Your task to perform on an android device: open the mobile data screen to see how much data has been used Image 0: 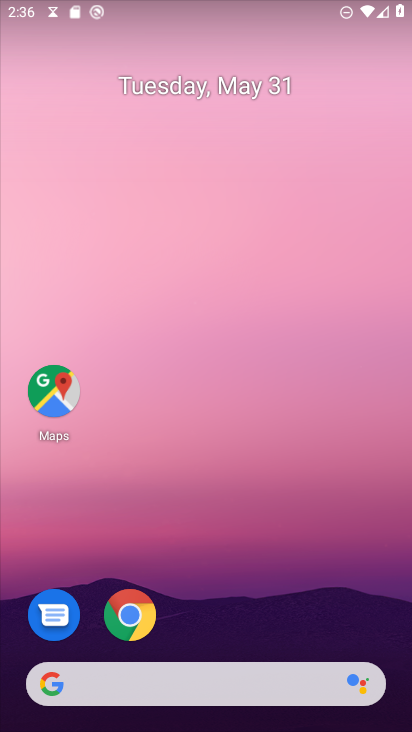
Step 0: drag from (206, 244) to (186, 73)
Your task to perform on an android device: open the mobile data screen to see how much data has been used Image 1: 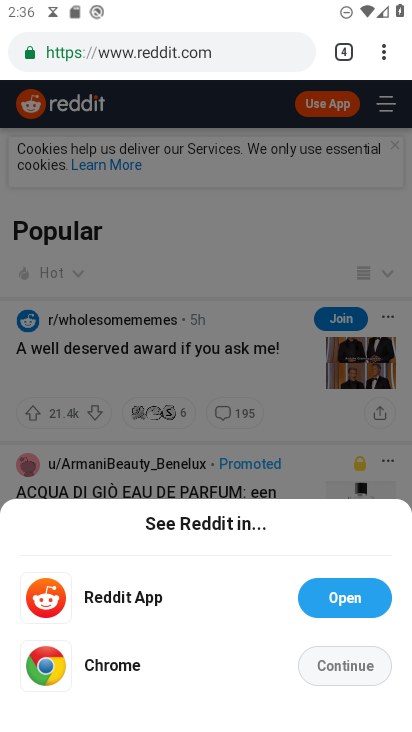
Step 1: press back button
Your task to perform on an android device: open the mobile data screen to see how much data has been used Image 2: 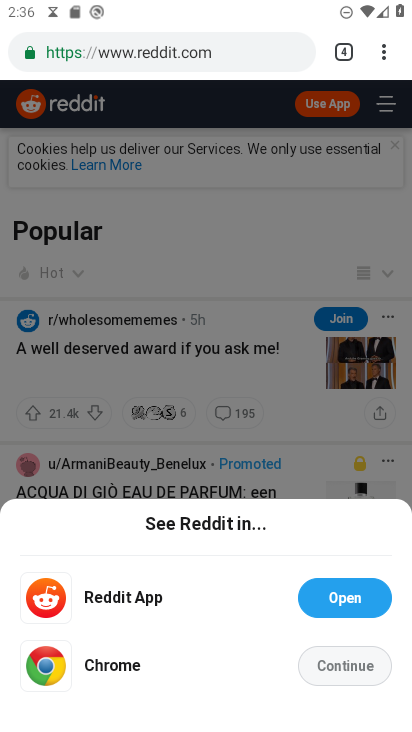
Step 2: press back button
Your task to perform on an android device: open the mobile data screen to see how much data has been used Image 3: 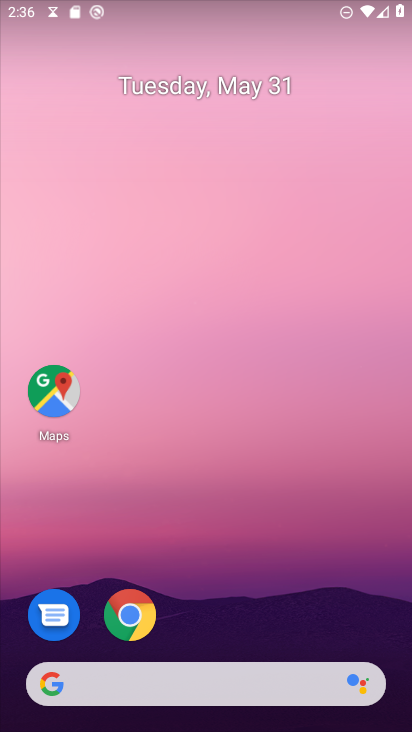
Step 3: drag from (229, 653) to (152, 168)
Your task to perform on an android device: open the mobile data screen to see how much data has been used Image 4: 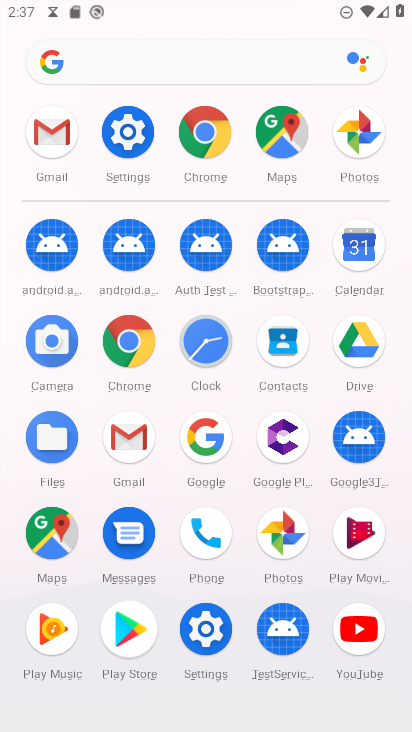
Step 4: click (203, 621)
Your task to perform on an android device: open the mobile data screen to see how much data has been used Image 5: 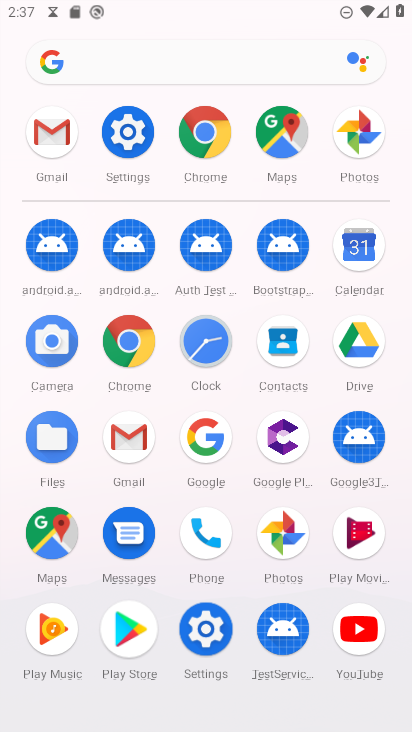
Step 5: click (203, 621)
Your task to perform on an android device: open the mobile data screen to see how much data has been used Image 6: 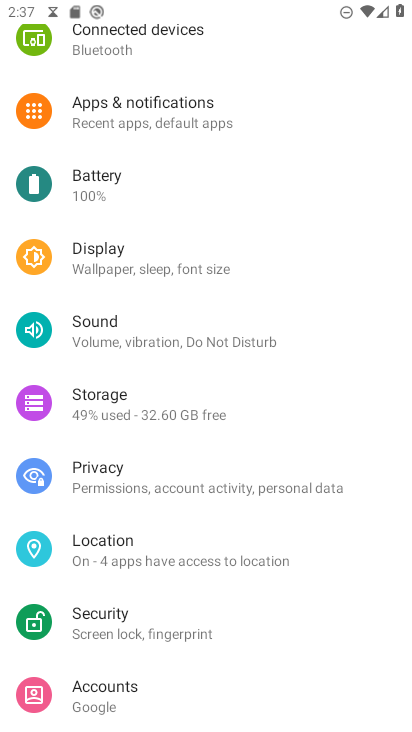
Step 6: drag from (120, 178) to (185, 408)
Your task to perform on an android device: open the mobile data screen to see how much data has been used Image 7: 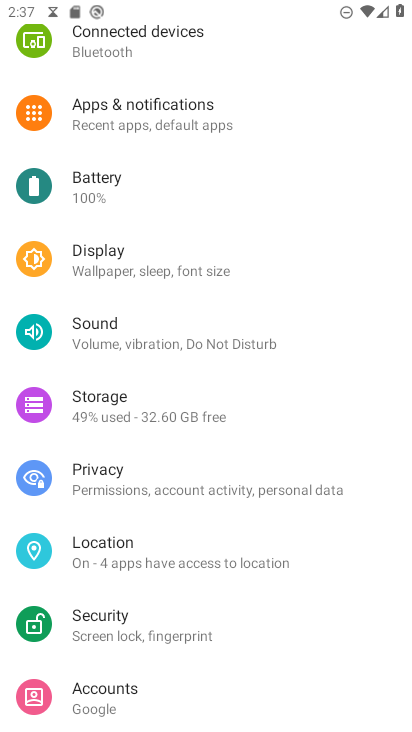
Step 7: drag from (151, 144) to (196, 386)
Your task to perform on an android device: open the mobile data screen to see how much data has been used Image 8: 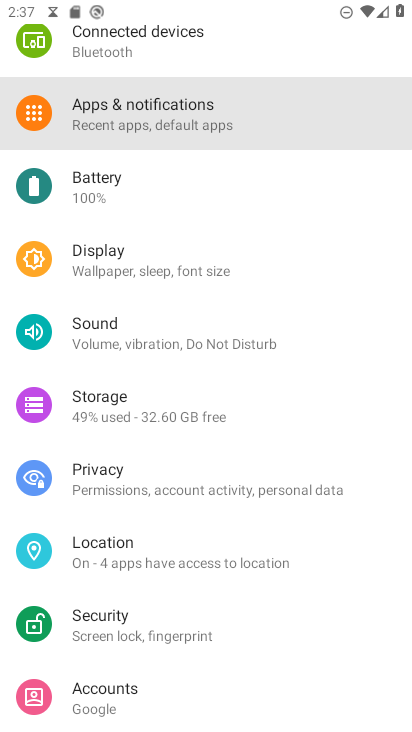
Step 8: drag from (189, 255) to (248, 476)
Your task to perform on an android device: open the mobile data screen to see how much data has been used Image 9: 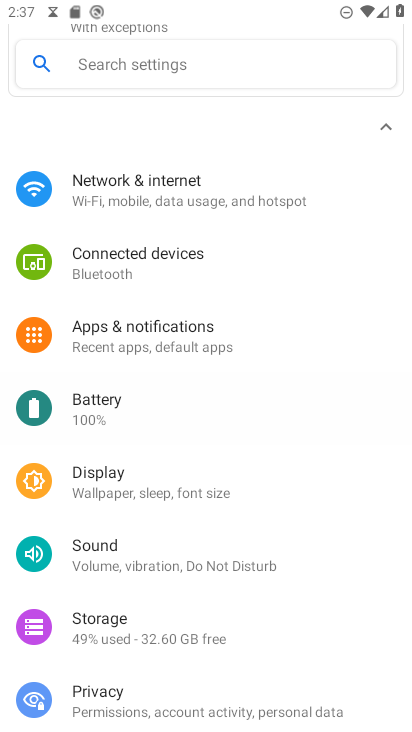
Step 9: drag from (233, 186) to (243, 446)
Your task to perform on an android device: open the mobile data screen to see how much data has been used Image 10: 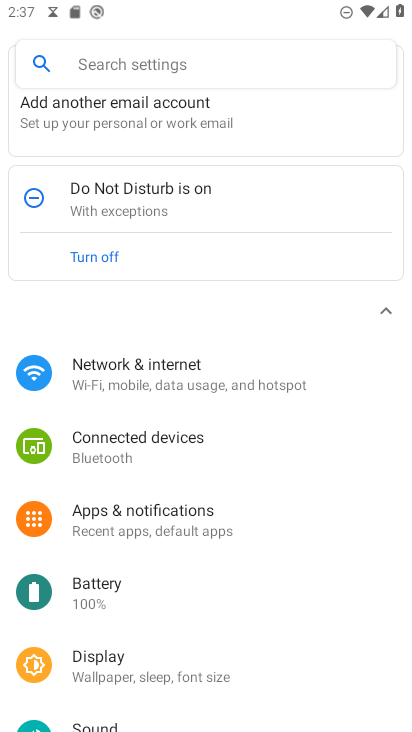
Step 10: click (168, 197)
Your task to perform on an android device: open the mobile data screen to see how much data has been used Image 11: 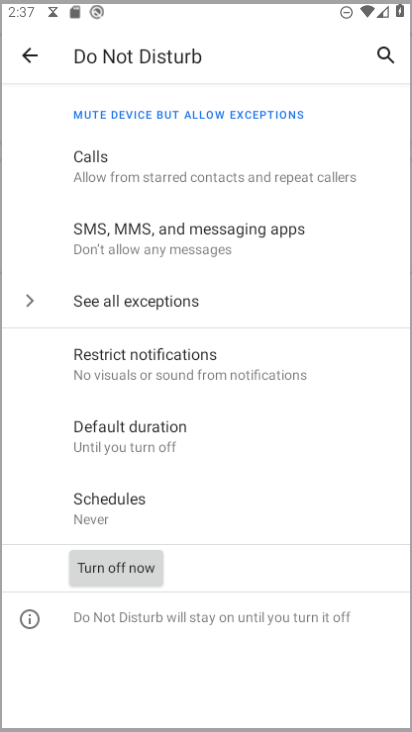
Step 11: click (169, 355)
Your task to perform on an android device: open the mobile data screen to see how much data has been used Image 12: 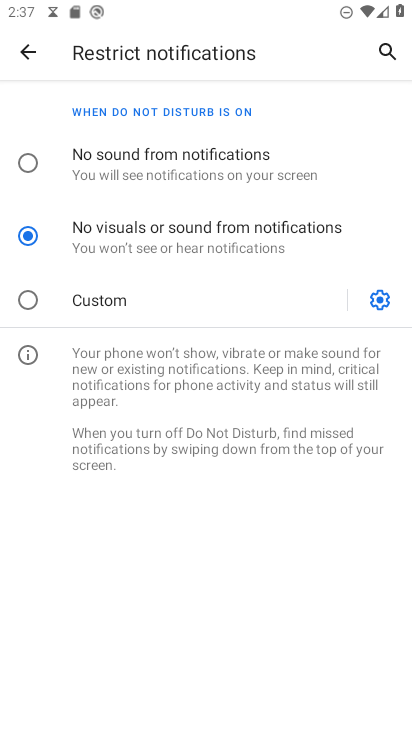
Step 12: click (21, 37)
Your task to perform on an android device: open the mobile data screen to see how much data has been used Image 13: 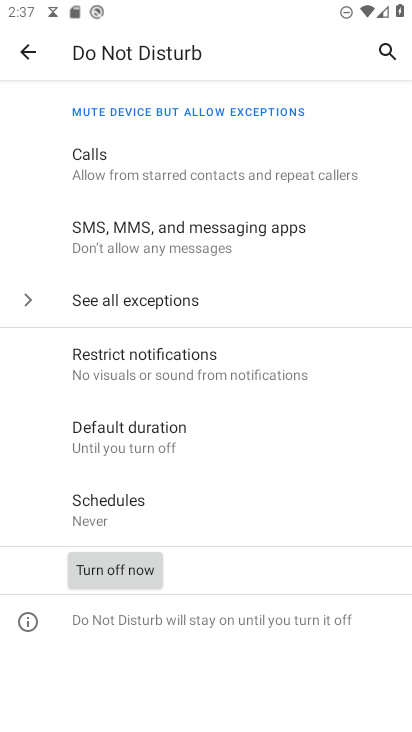
Step 13: click (19, 42)
Your task to perform on an android device: open the mobile data screen to see how much data has been used Image 14: 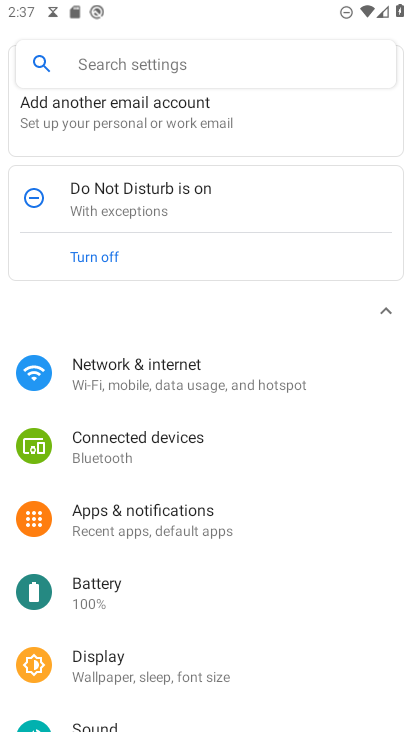
Step 14: click (166, 375)
Your task to perform on an android device: open the mobile data screen to see how much data has been used Image 15: 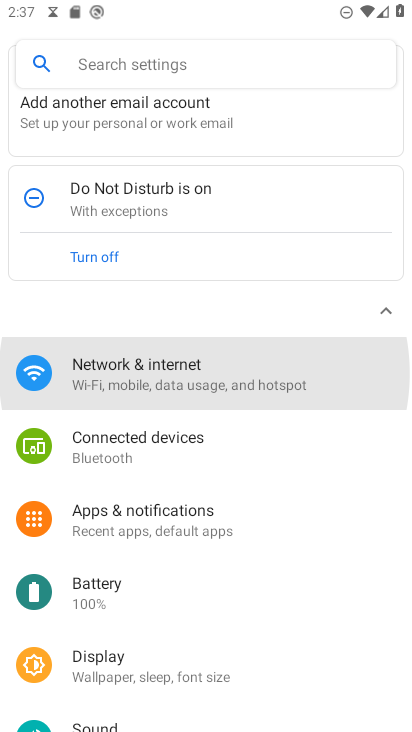
Step 15: click (167, 376)
Your task to perform on an android device: open the mobile data screen to see how much data has been used Image 16: 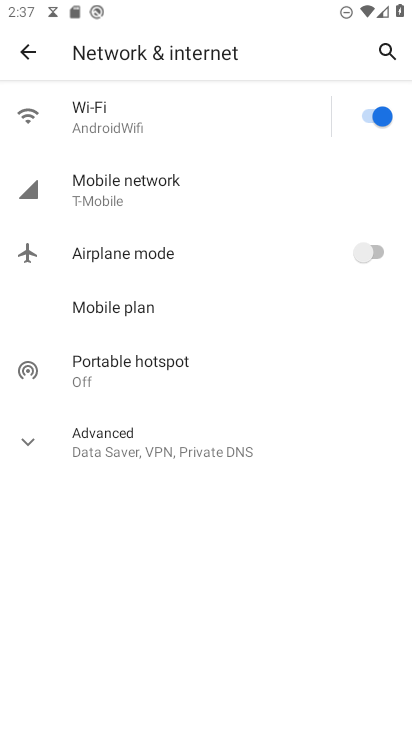
Step 16: task complete